Your task to perform on an android device: open the mobile data screen to see how much data has been used Image 0: 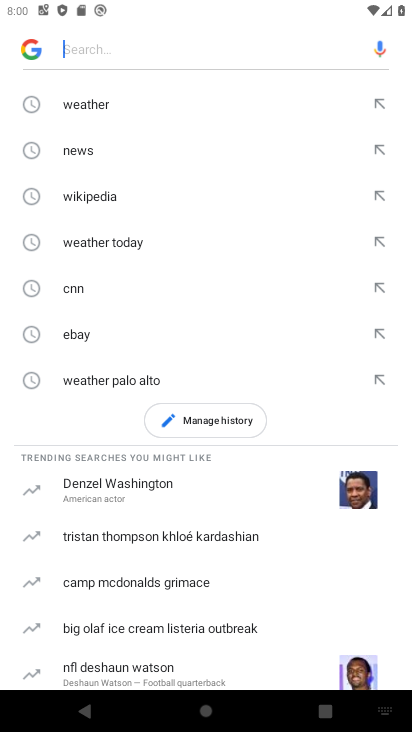
Step 0: press home button
Your task to perform on an android device: open the mobile data screen to see how much data has been used Image 1: 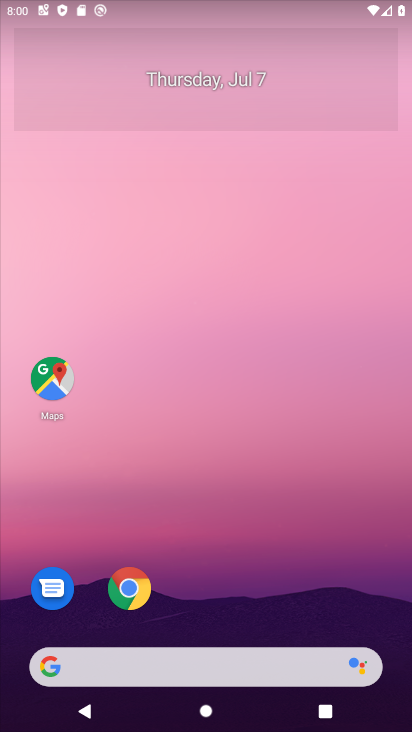
Step 1: drag from (205, 395) to (294, 88)
Your task to perform on an android device: open the mobile data screen to see how much data has been used Image 2: 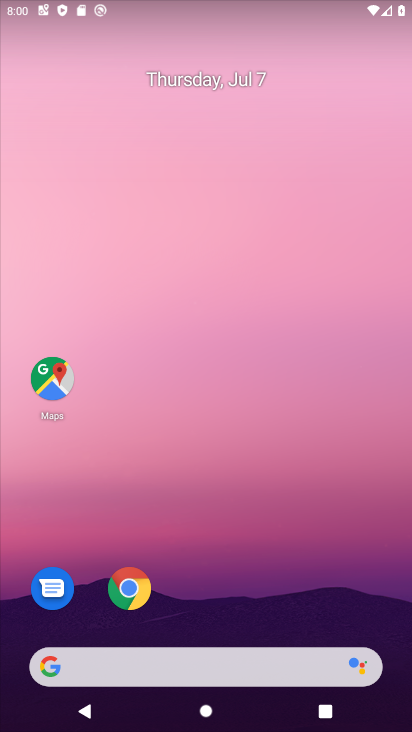
Step 2: click (201, 60)
Your task to perform on an android device: open the mobile data screen to see how much data has been used Image 3: 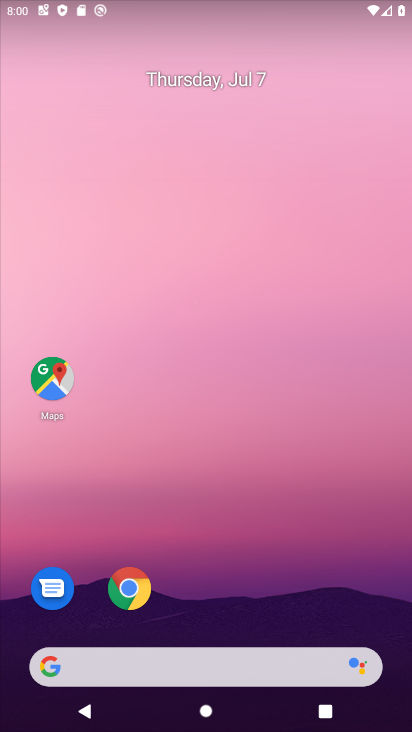
Step 3: drag from (94, 612) to (258, 1)
Your task to perform on an android device: open the mobile data screen to see how much data has been used Image 4: 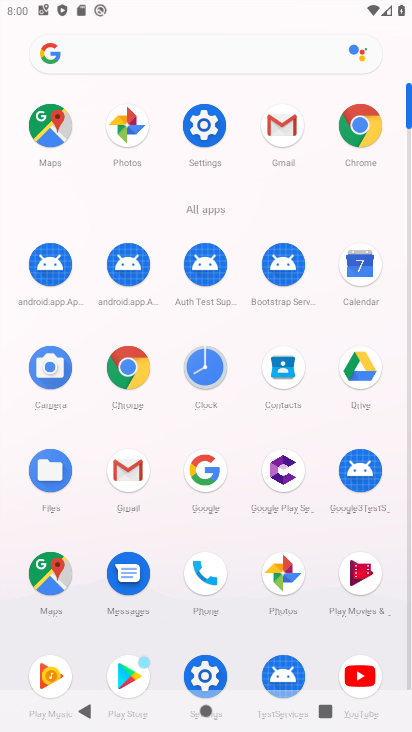
Step 4: click (199, 677)
Your task to perform on an android device: open the mobile data screen to see how much data has been used Image 5: 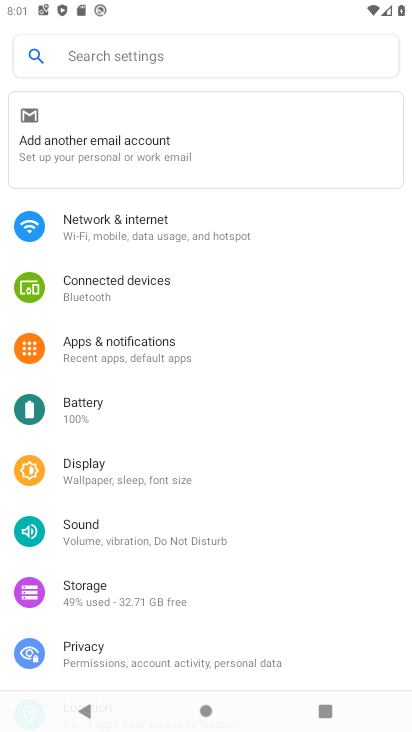
Step 5: click (175, 240)
Your task to perform on an android device: open the mobile data screen to see how much data has been used Image 6: 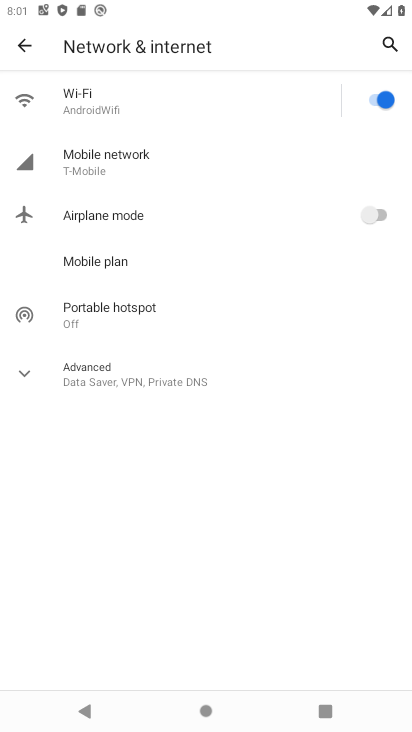
Step 6: click (112, 376)
Your task to perform on an android device: open the mobile data screen to see how much data has been used Image 7: 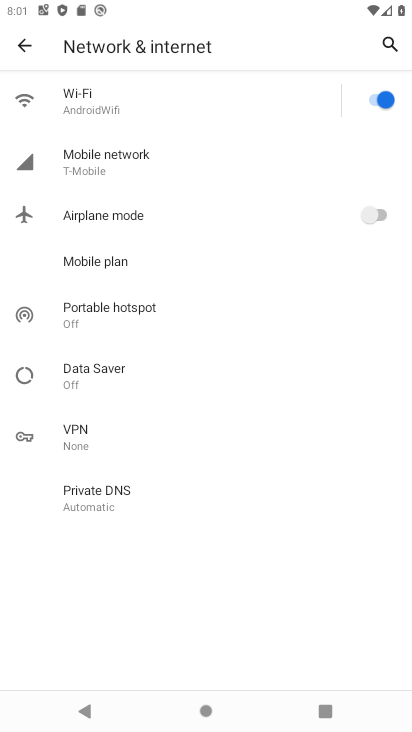
Step 7: click (123, 166)
Your task to perform on an android device: open the mobile data screen to see how much data has been used Image 8: 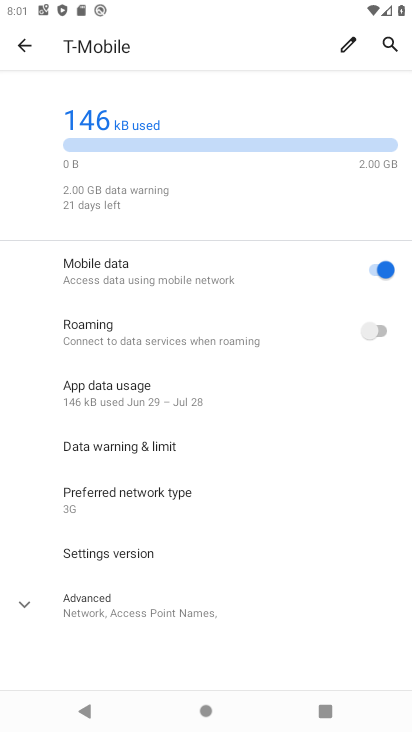
Step 8: task complete